Your task to perform on an android device: install app "PUBG MOBILE" Image 0: 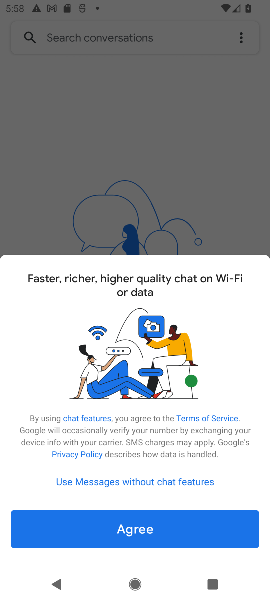
Step 0: press home button
Your task to perform on an android device: install app "PUBG MOBILE" Image 1: 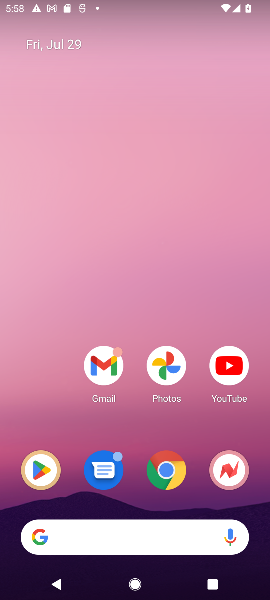
Step 1: drag from (253, 432) to (216, 43)
Your task to perform on an android device: install app "PUBG MOBILE" Image 2: 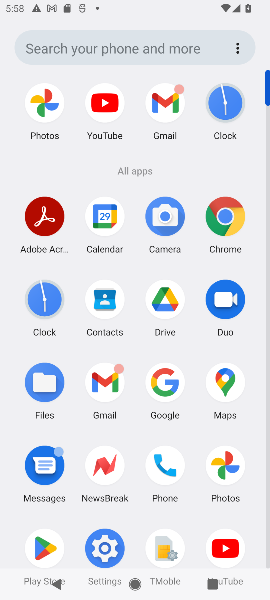
Step 2: drag from (132, 372) to (157, 109)
Your task to perform on an android device: install app "PUBG MOBILE" Image 3: 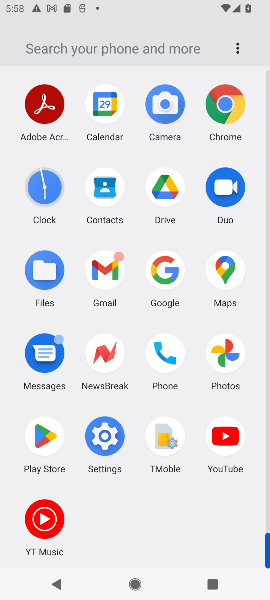
Step 3: click (54, 444)
Your task to perform on an android device: install app "PUBG MOBILE" Image 4: 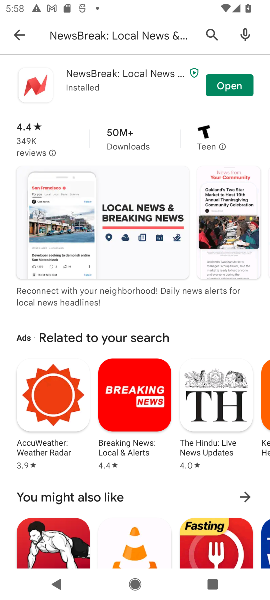
Step 4: click (171, 26)
Your task to perform on an android device: install app "PUBG MOBILE" Image 5: 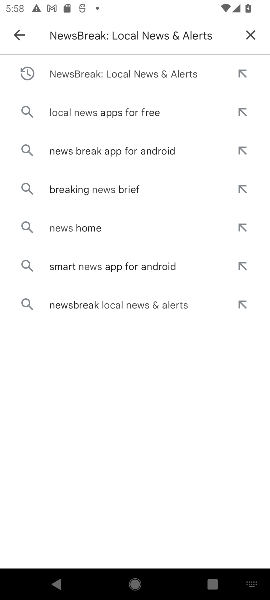
Step 5: click (253, 30)
Your task to perform on an android device: install app "PUBG MOBILE" Image 6: 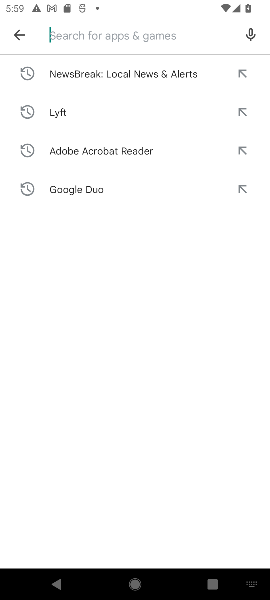
Step 6: type "PUBG MOBILE"
Your task to perform on an android device: install app "PUBG MOBILE" Image 7: 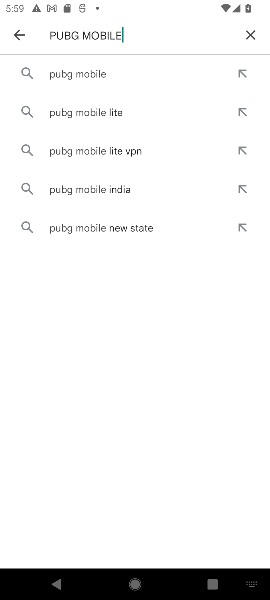
Step 7: press enter
Your task to perform on an android device: install app "PUBG MOBILE" Image 8: 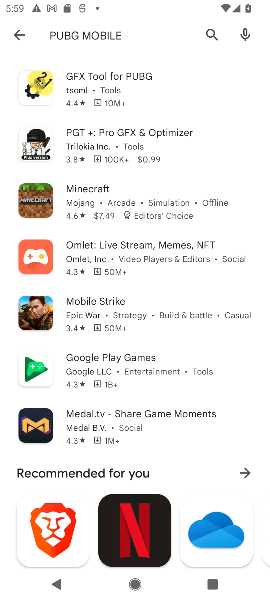
Step 8: task complete